Your task to perform on an android device: change your default location settings in chrome Image 0: 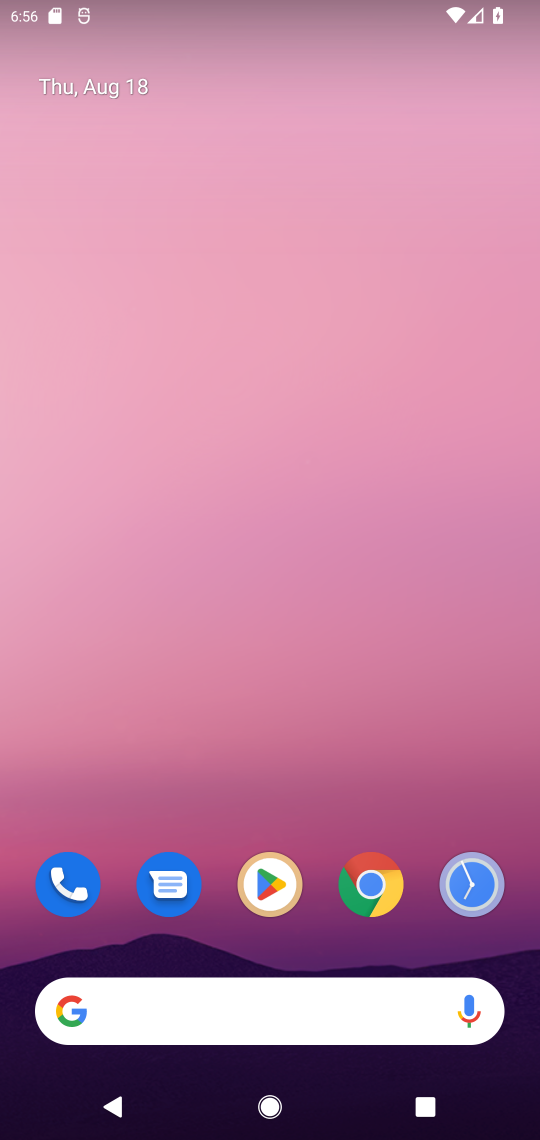
Step 0: click (362, 887)
Your task to perform on an android device: change your default location settings in chrome Image 1: 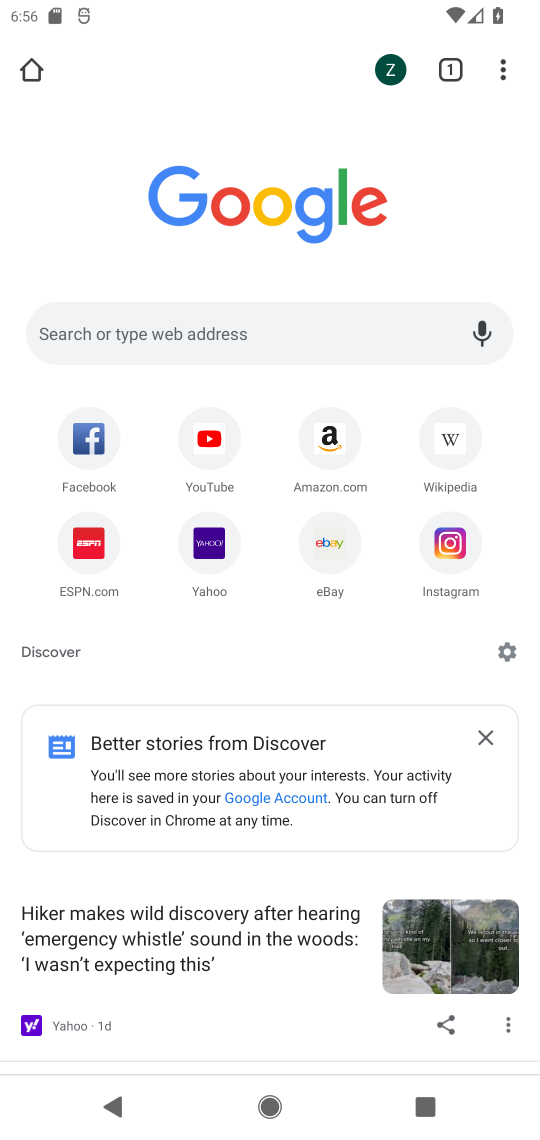
Step 1: click (512, 66)
Your task to perform on an android device: change your default location settings in chrome Image 2: 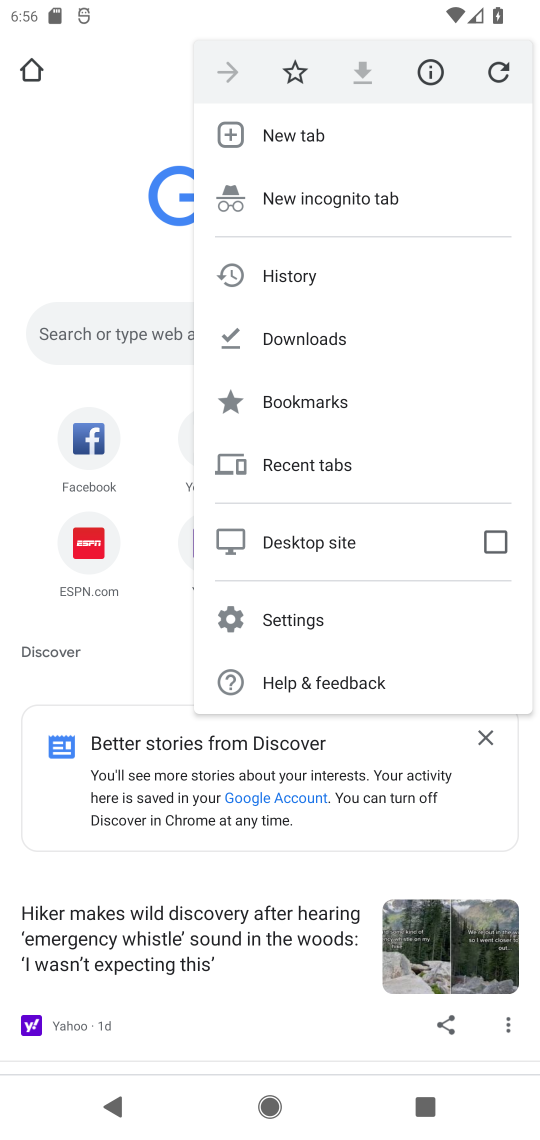
Step 2: click (274, 628)
Your task to perform on an android device: change your default location settings in chrome Image 3: 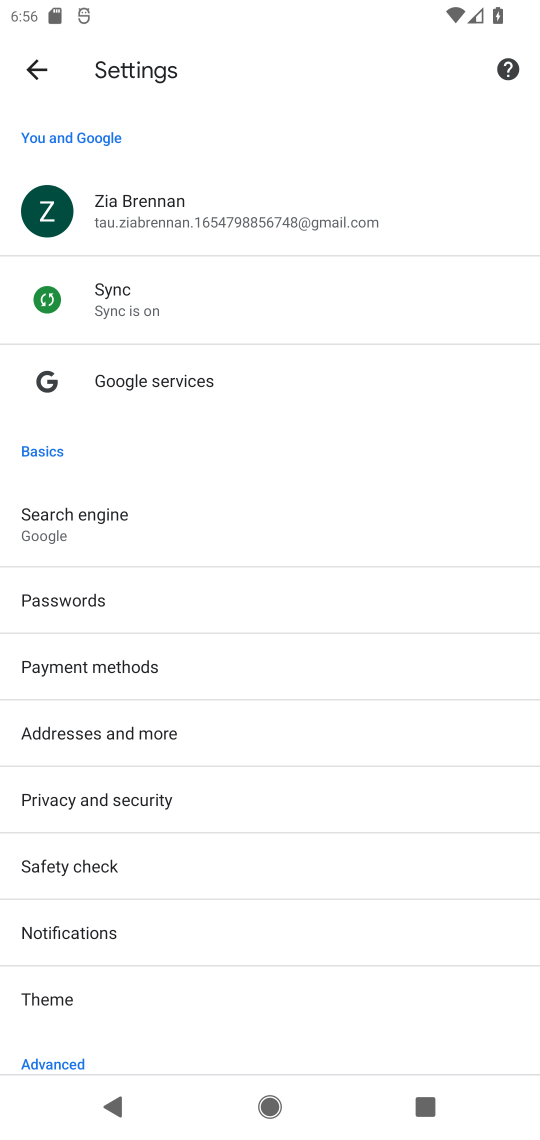
Step 3: drag from (172, 1036) to (219, 450)
Your task to perform on an android device: change your default location settings in chrome Image 4: 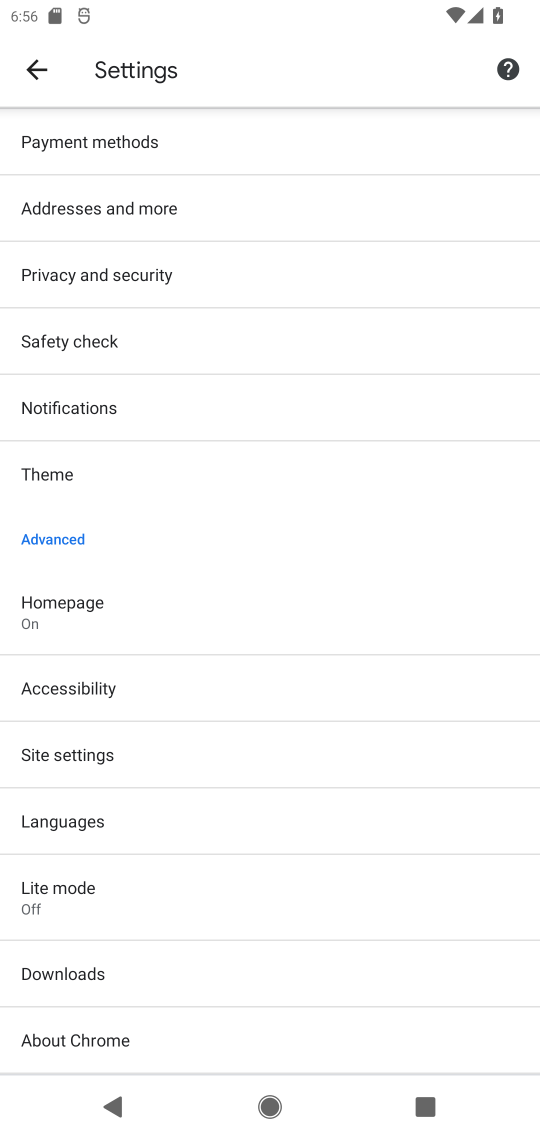
Step 4: click (47, 70)
Your task to perform on an android device: change your default location settings in chrome Image 5: 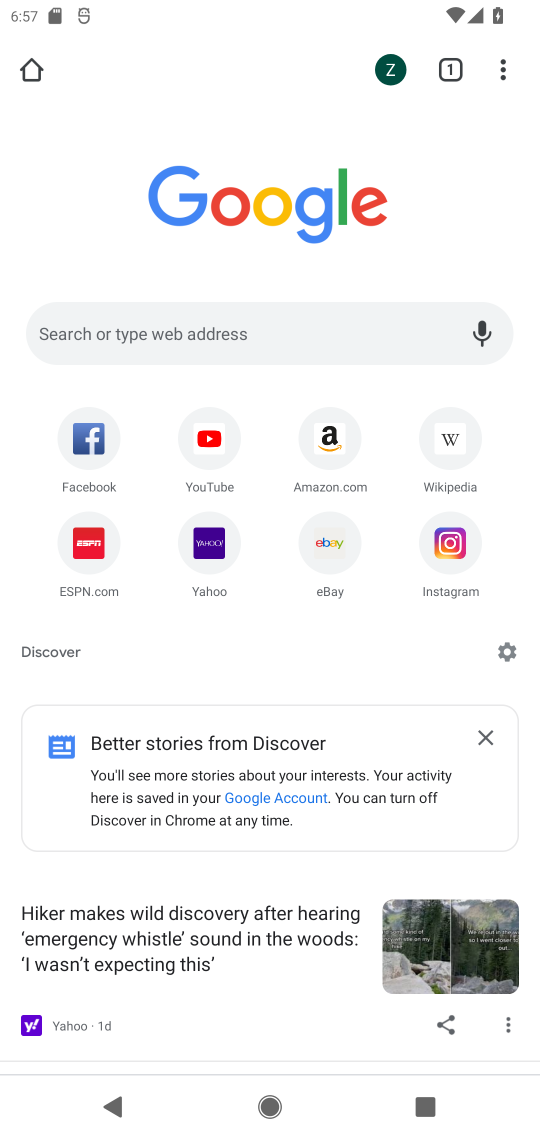
Step 5: click (508, 64)
Your task to perform on an android device: change your default location settings in chrome Image 6: 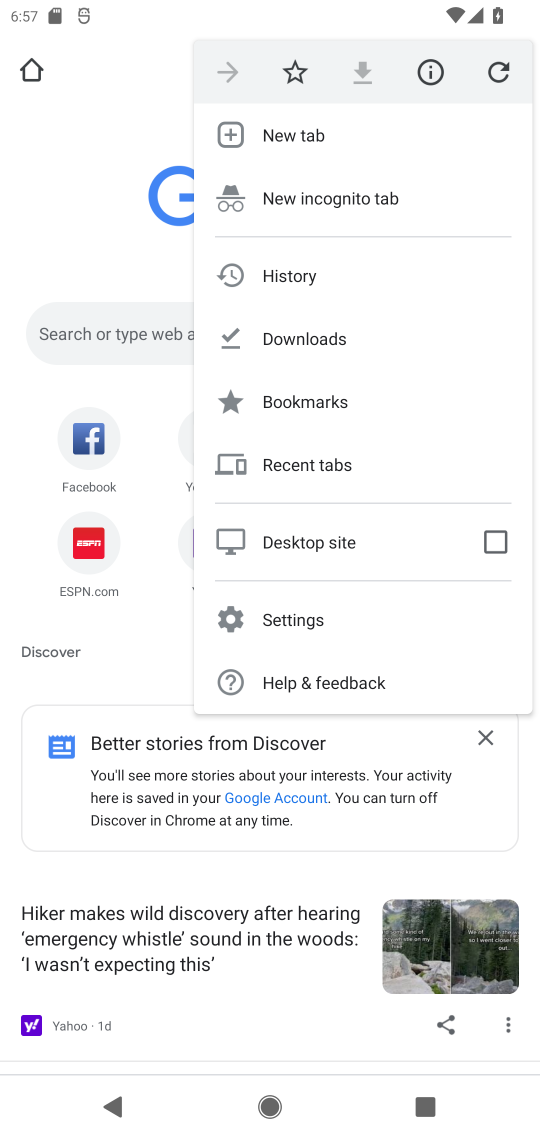
Step 6: click (256, 629)
Your task to perform on an android device: change your default location settings in chrome Image 7: 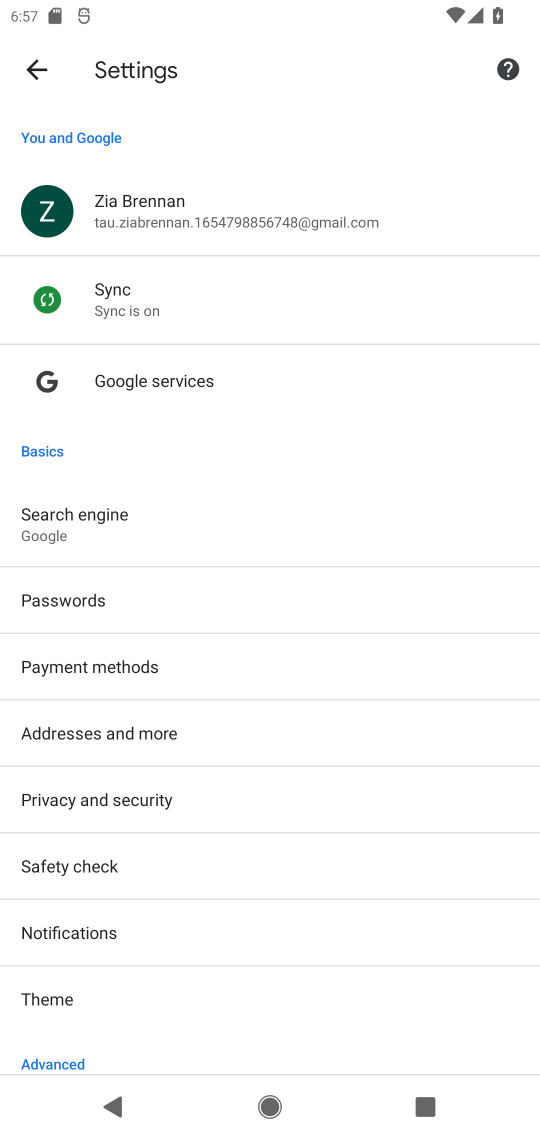
Step 7: drag from (173, 983) to (327, 20)
Your task to perform on an android device: change your default location settings in chrome Image 8: 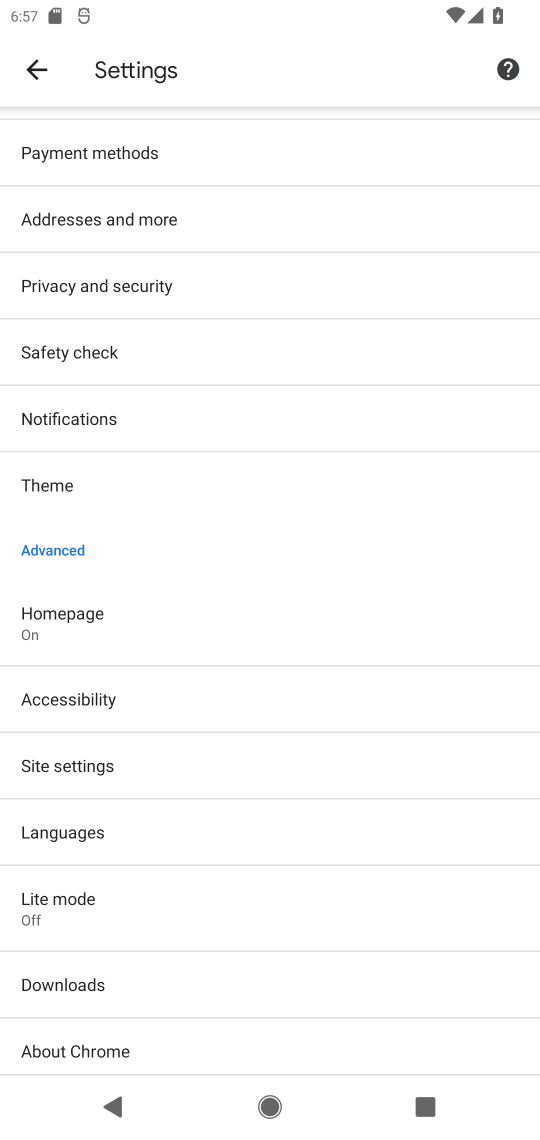
Step 8: click (180, 755)
Your task to perform on an android device: change your default location settings in chrome Image 9: 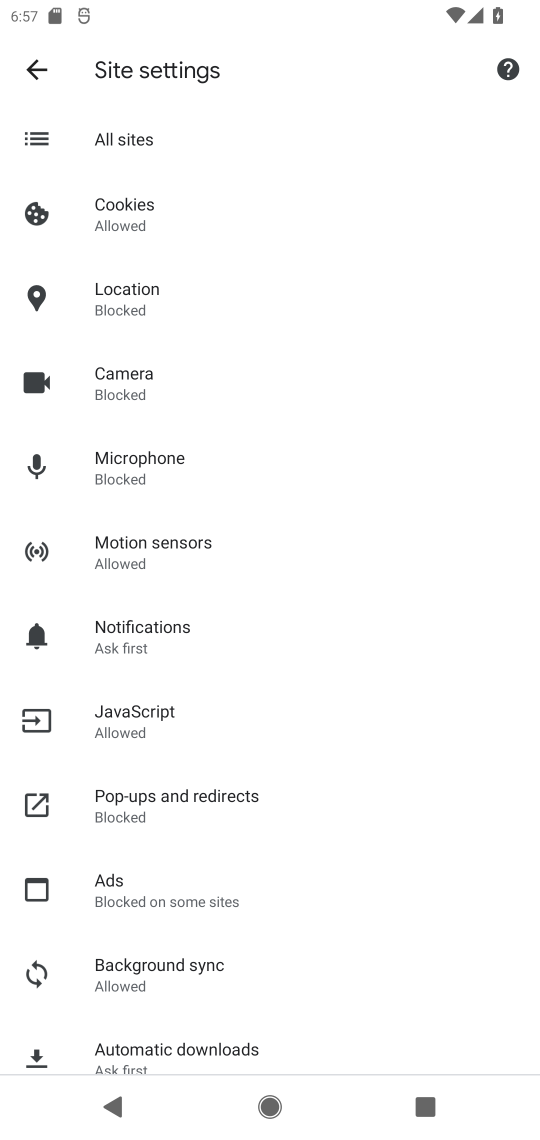
Step 9: drag from (174, 1022) to (289, 195)
Your task to perform on an android device: change your default location settings in chrome Image 10: 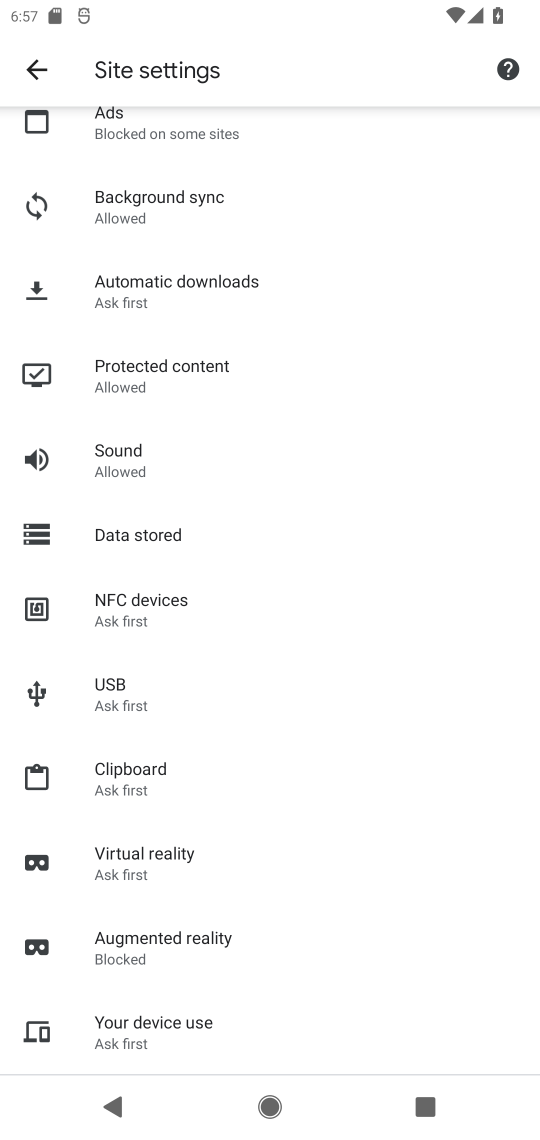
Step 10: drag from (108, 991) to (189, 85)
Your task to perform on an android device: change your default location settings in chrome Image 11: 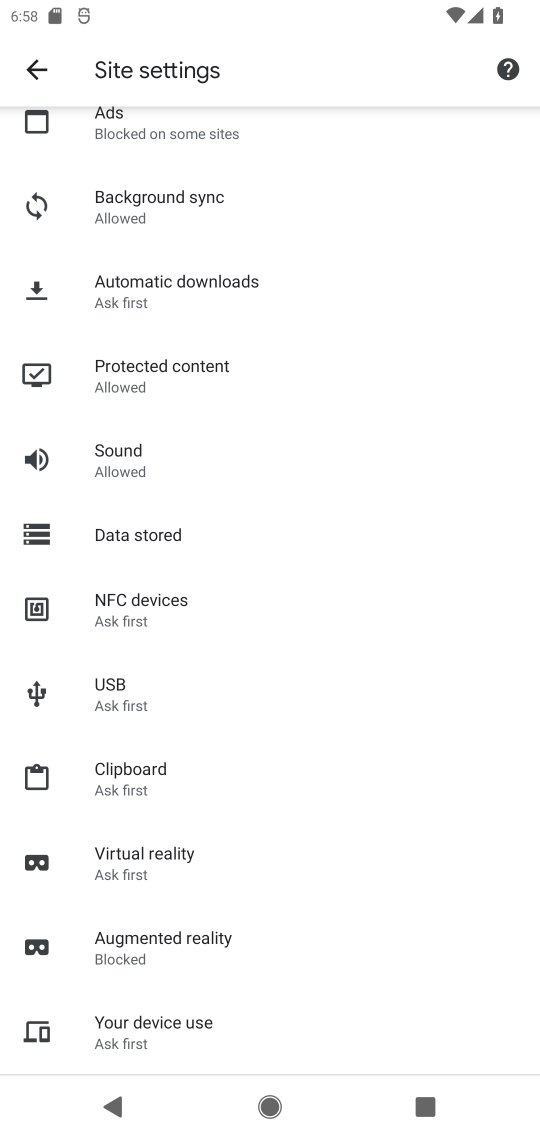
Step 11: drag from (133, 253) to (465, 1037)
Your task to perform on an android device: change your default location settings in chrome Image 12: 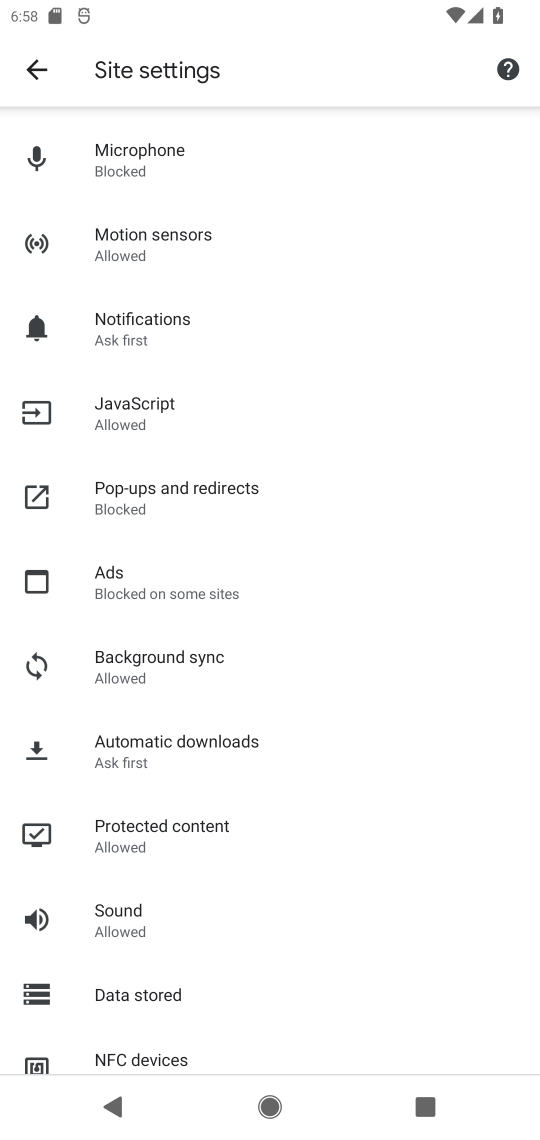
Step 12: drag from (190, 186) to (197, 979)
Your task to perform on an android device: change your default location settings in chrome Image 13: 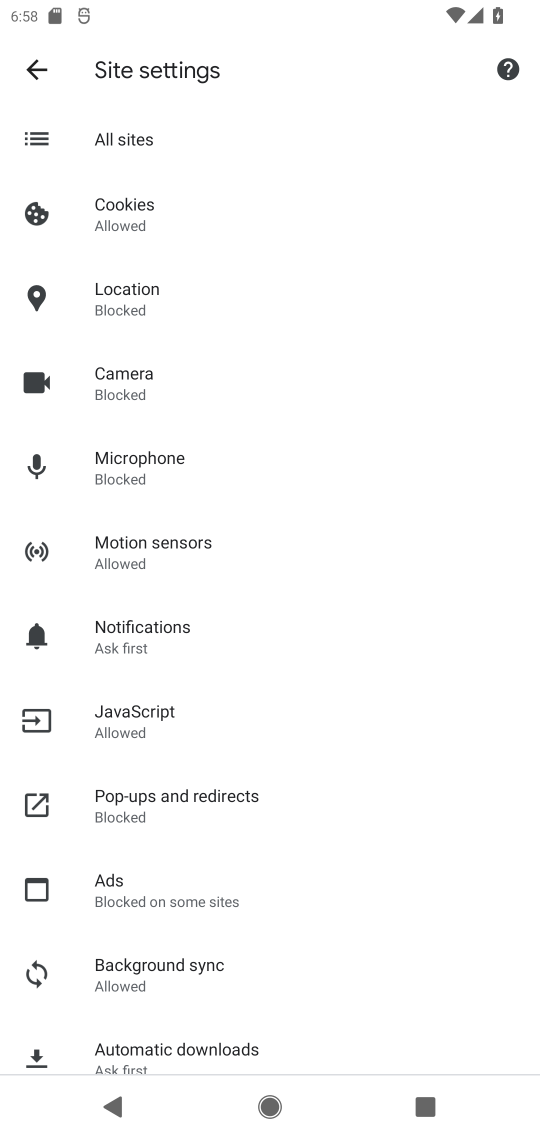
Step 13: click (194, 293)
Your task to perform on an android device: change your default location settings in chrome Image 14: 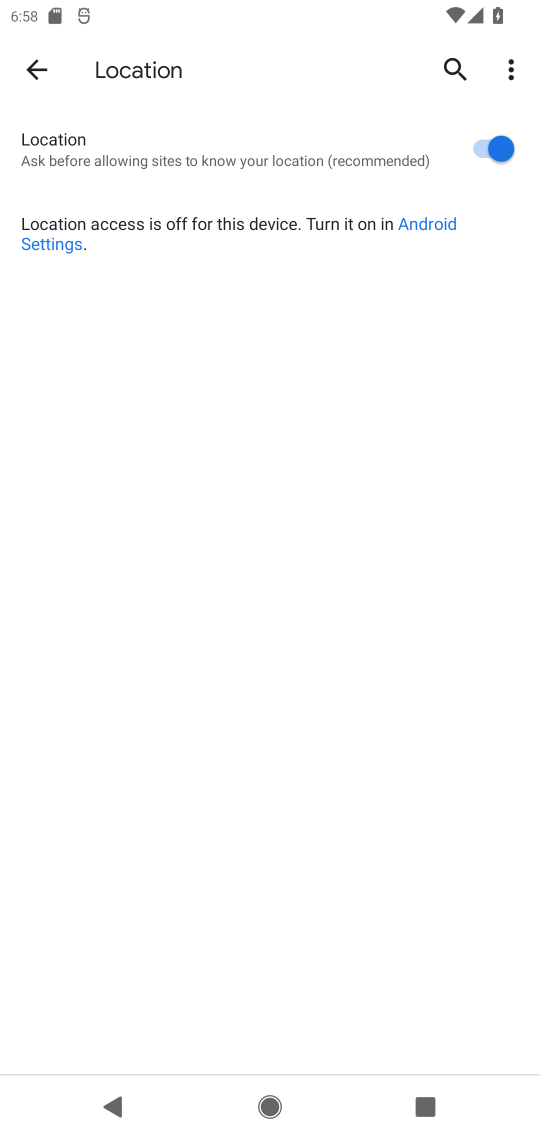
Step 14: click (486, 151)
Your task to perform on an android device: change your default location settings in chrome Image 15: 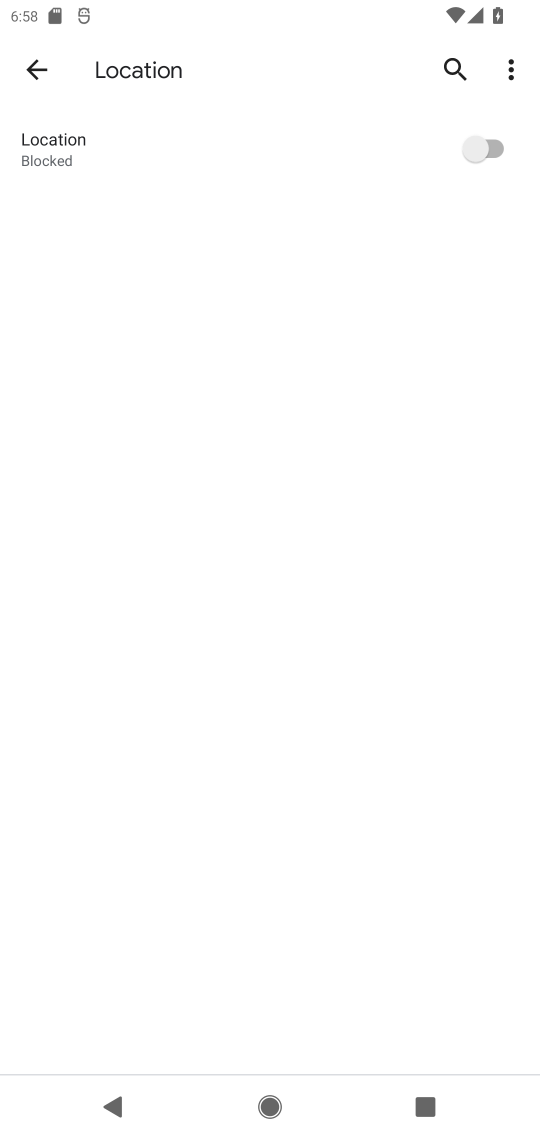
Step 15: task complete